Your task to perform on an android device: open app "Move to iOS" Image 0: 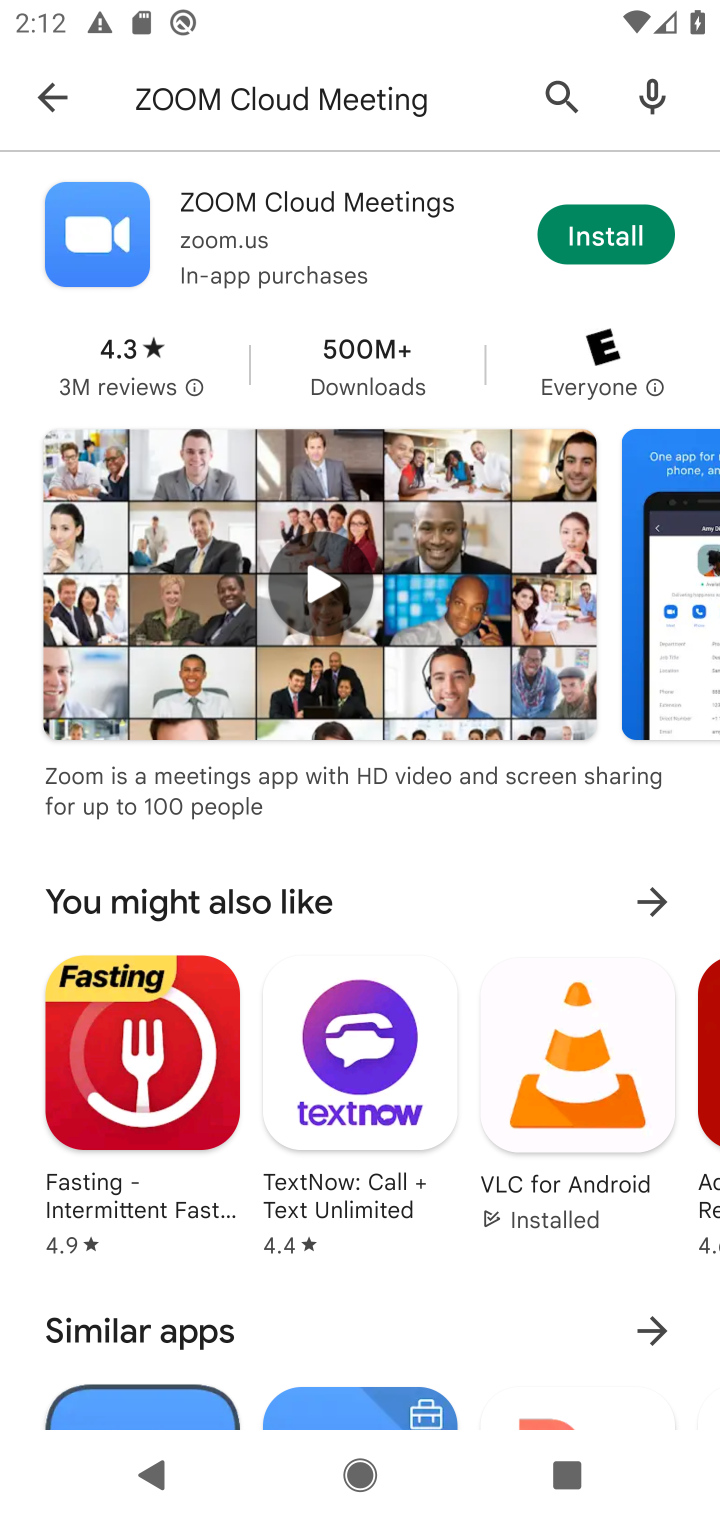
Step 0: click (300, 88)
Your task to perform on an android device: open app "Move to iOS" Image 1: 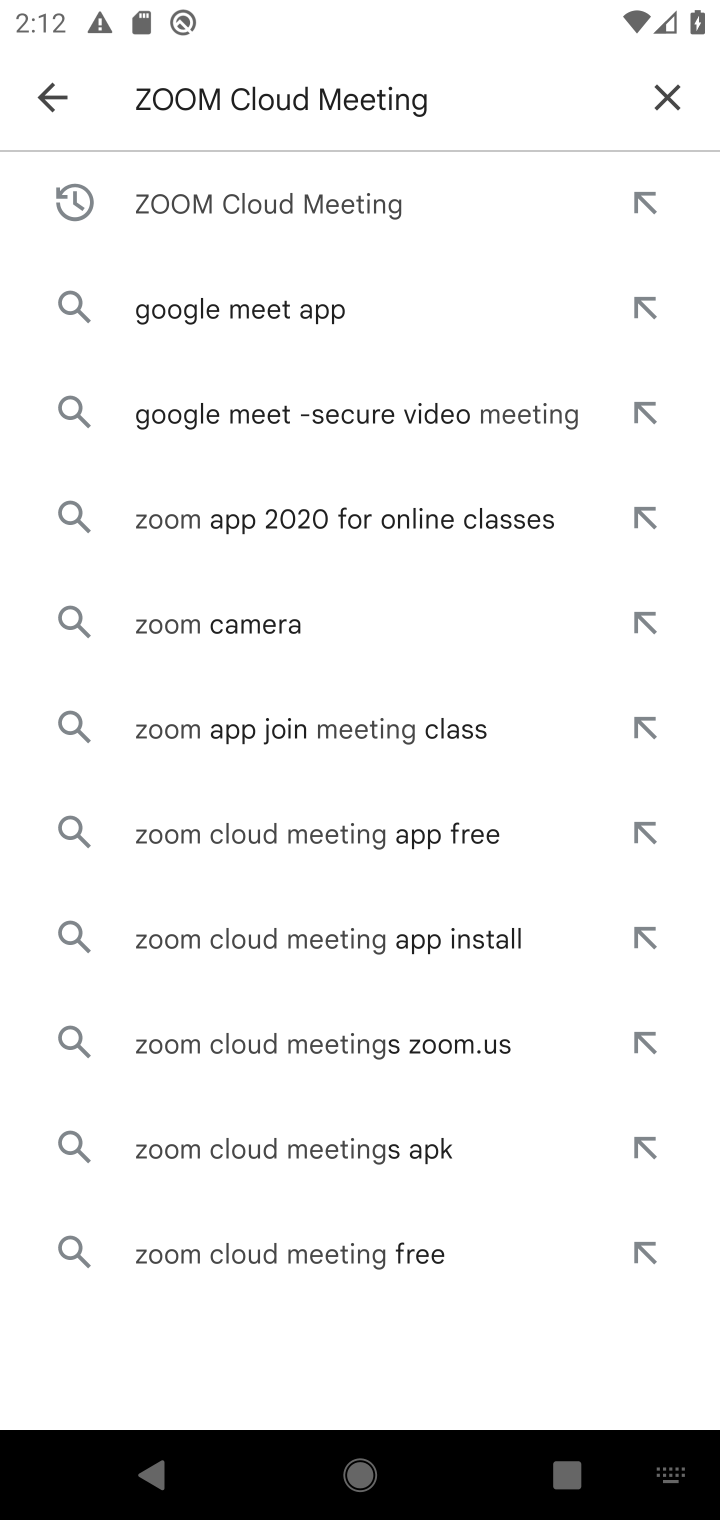
Step 1: click (658, 98)
Your task to perform on an android device: open app "Move to iOS" Image 2: 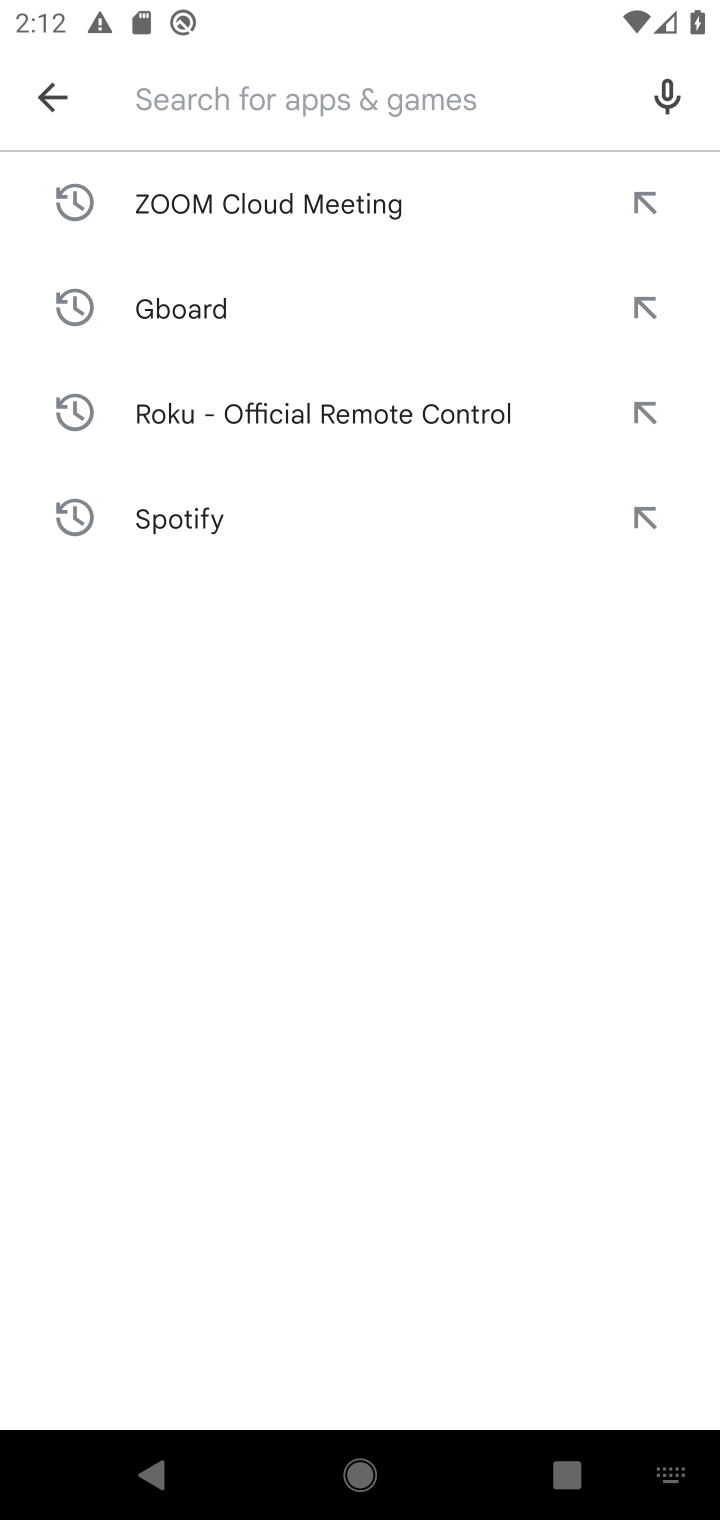
Step 2: type "Move to iOS"
Your task to perform on an android device: open app "Move to iOS" Image 3: 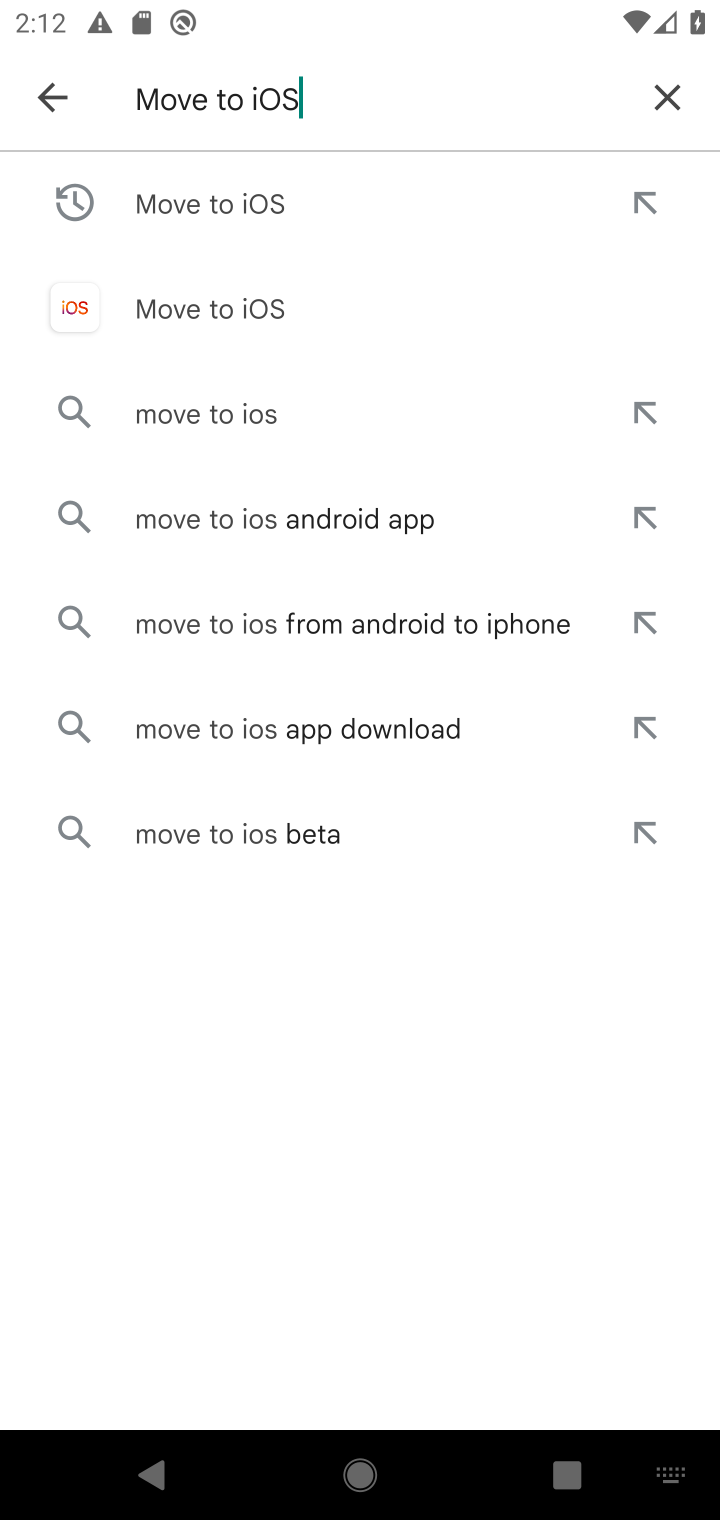
Step 3: press enter
Your task to perform on an android device: open app "Move to iOS" Image 4: 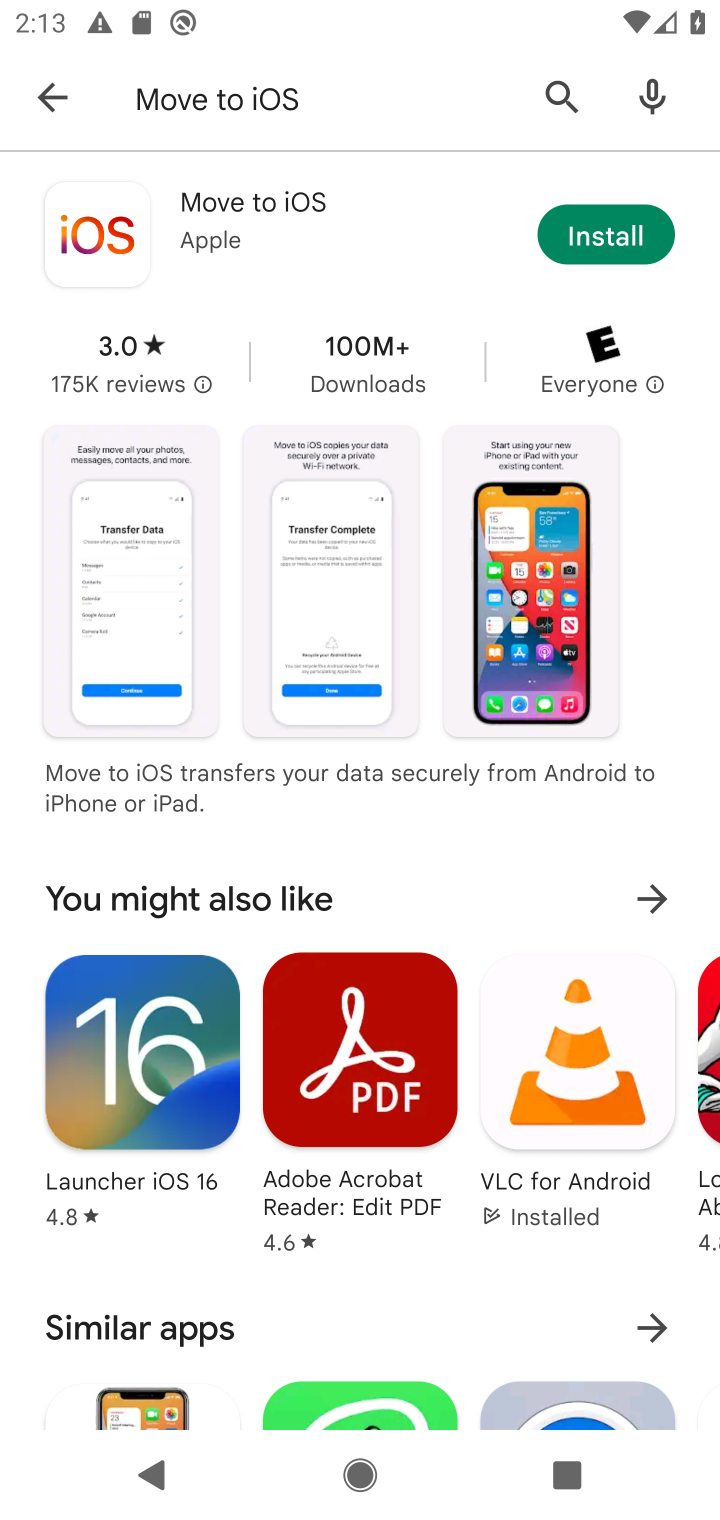
Step 4: task complete